Your task to perform on an android device: Open Chrome and go to settings Image 0: 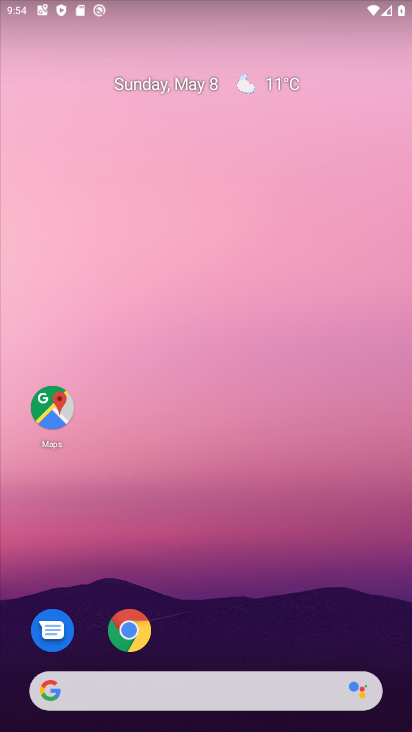
Step 0: drag from (366, 620) to (300, 19)
Your task to perform on an android device: Open Chrome and go to settings Image 1: 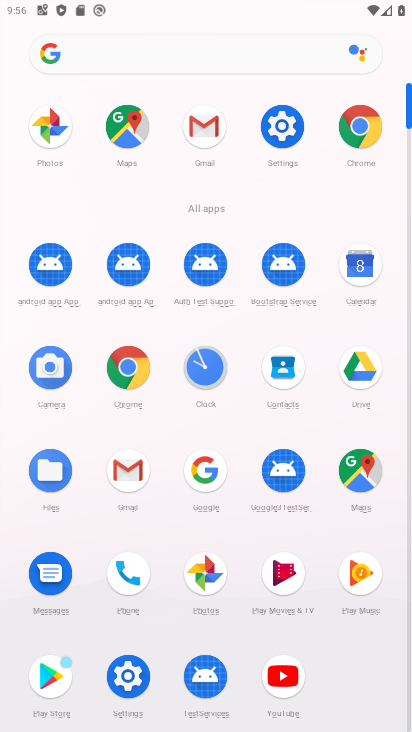
Step 1: click (131, 365)
Your task to perform on an android device: Open Chrome and go to settings Image 2: 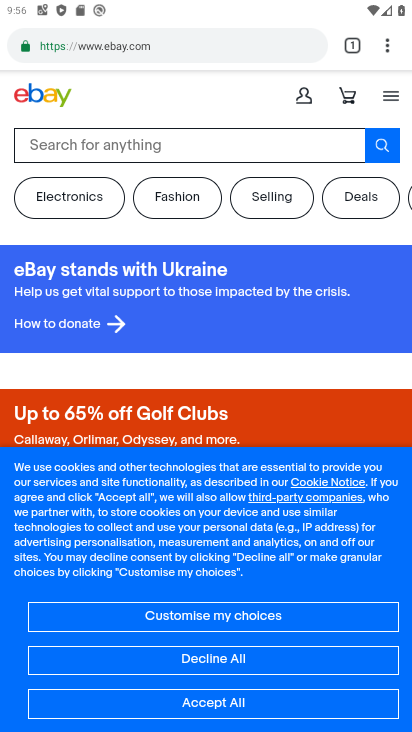
Step 2: press back button
Your task to perform on an android device: Open Chrome and go to settings Image 3: 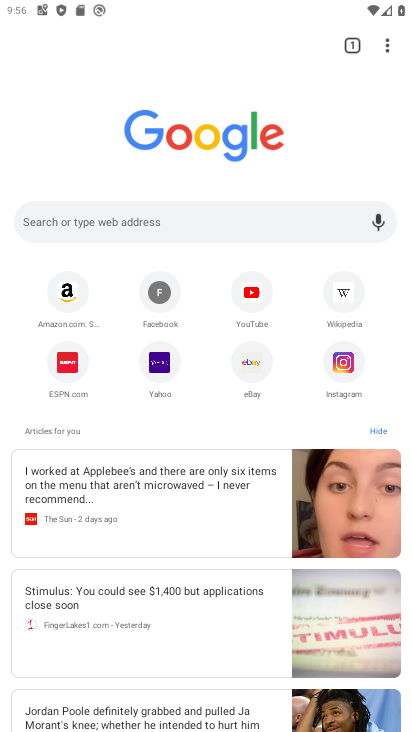
Step 3: click (386, 42)
Your task to perform on an android device: Open Chrome and go to settings Image 4: 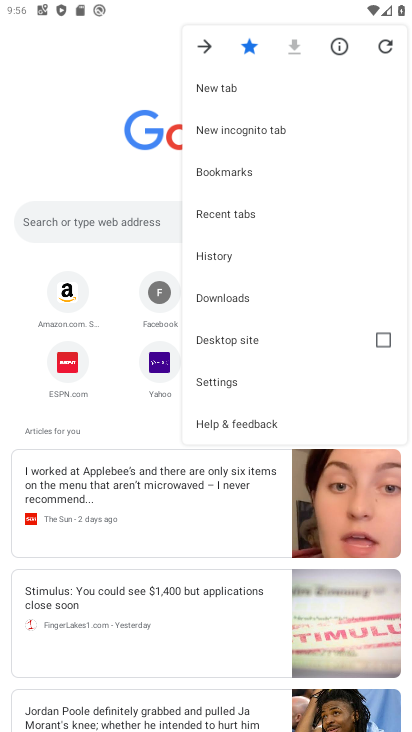
Step 4: click (236, 384)
Your task to perform on an android device: Open Chrome and go to settings Image 5: 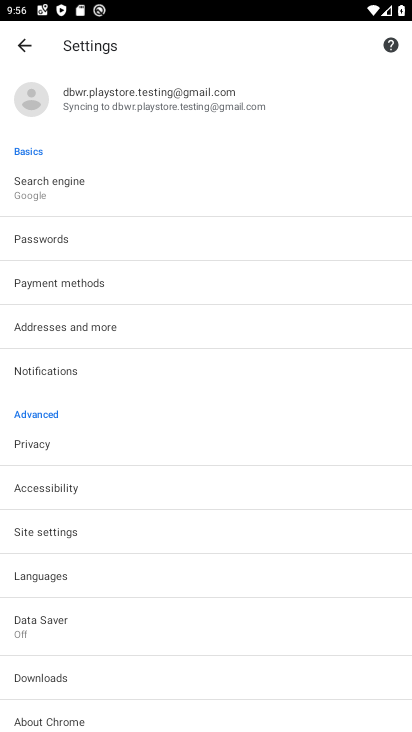
Step 5: task complete